Your task to perform on an android device: Open the Play Movies app and select the watchlist tab. Image 0: 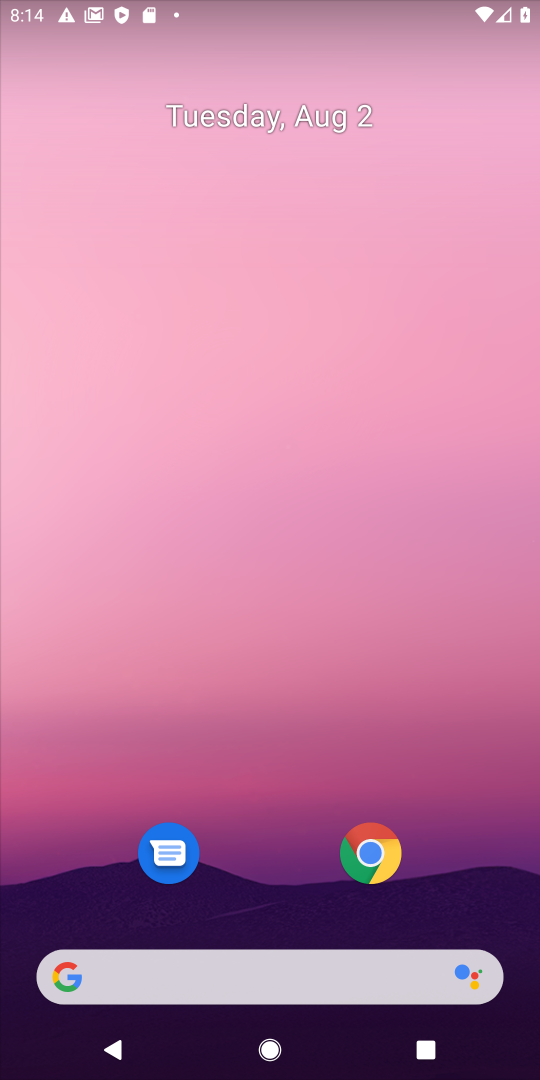
Step 0: drag from (234, 909) to (210, 157)
Your task to perform on an android device: Open the Play Movies app and select the watchlist tab. Image 1: 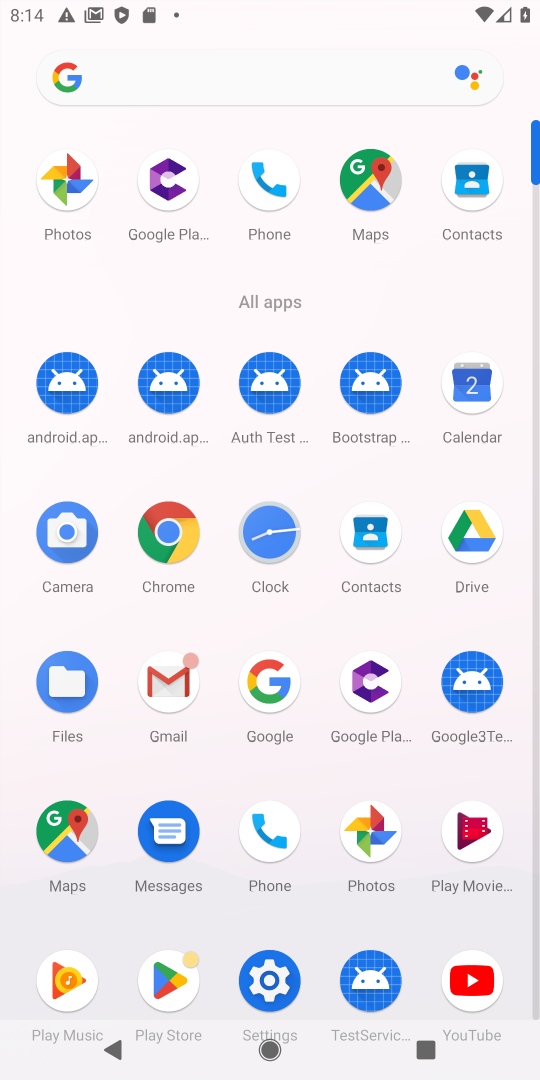
Step 1: click (468, 827)
Your task to perform on an android device: Open the Play Movies app and select the watchlist tab. Image 2: 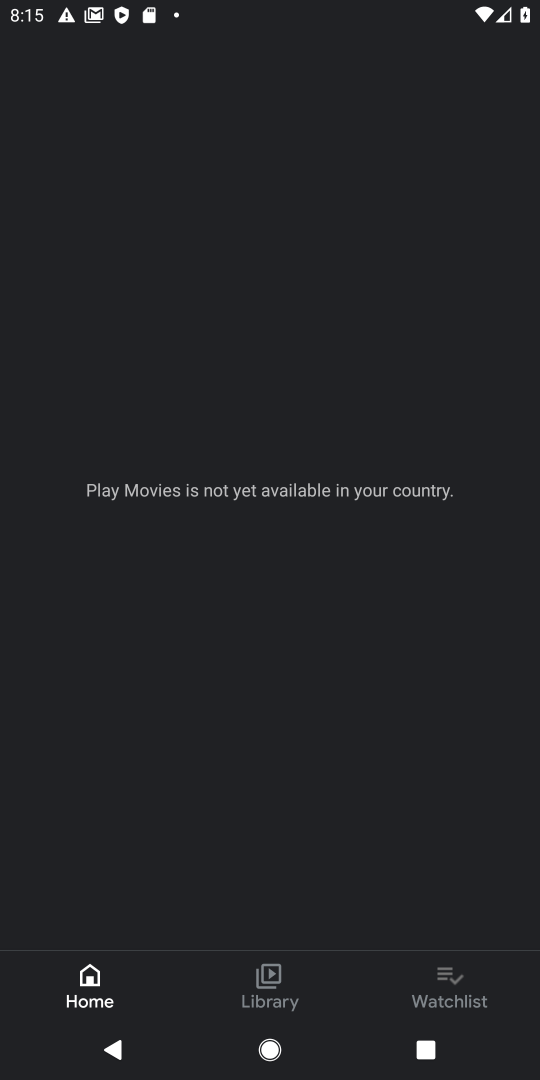
Step 2: click (446, 991)
Your task to perform on an android device: Open the Play Movies app and select the watchlist tab. Image 3: 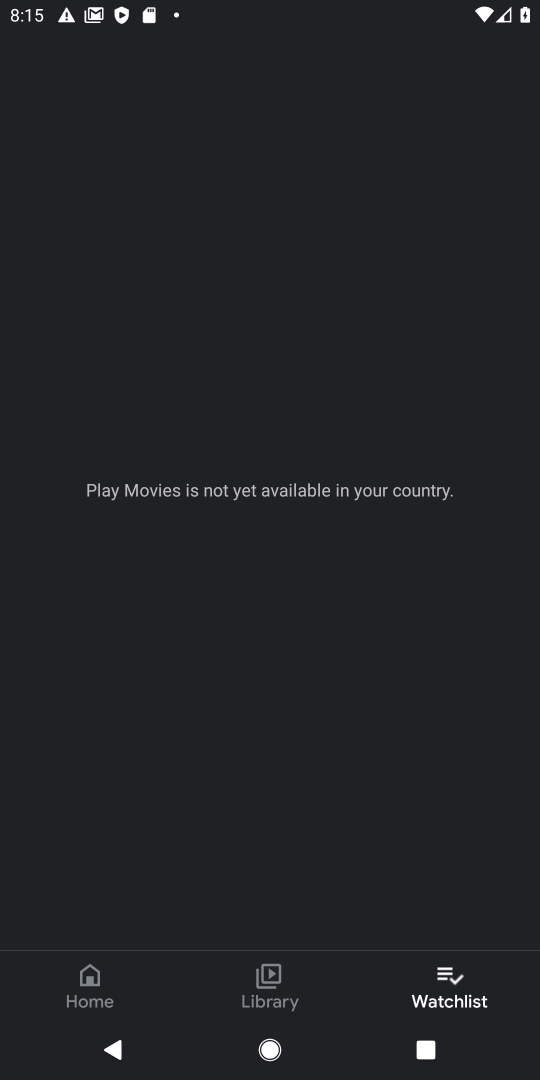
Step 3: task complete